Your task to perform on an android device: uninstall "Google Find My Device" Image 0: 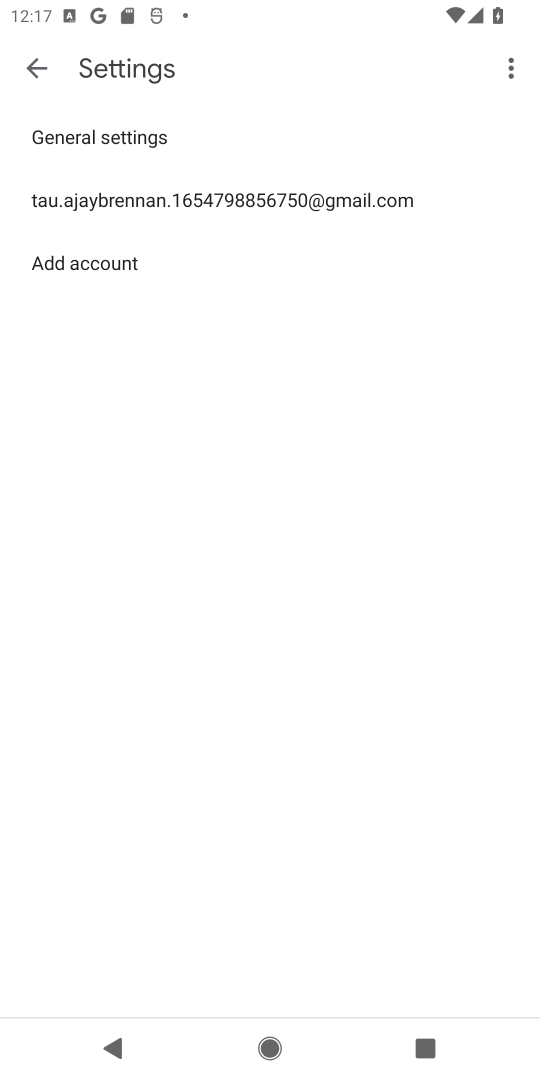
Step 0: press home button
Your task to perform on an android device: uninstall "Google Find My Device" Image 1: 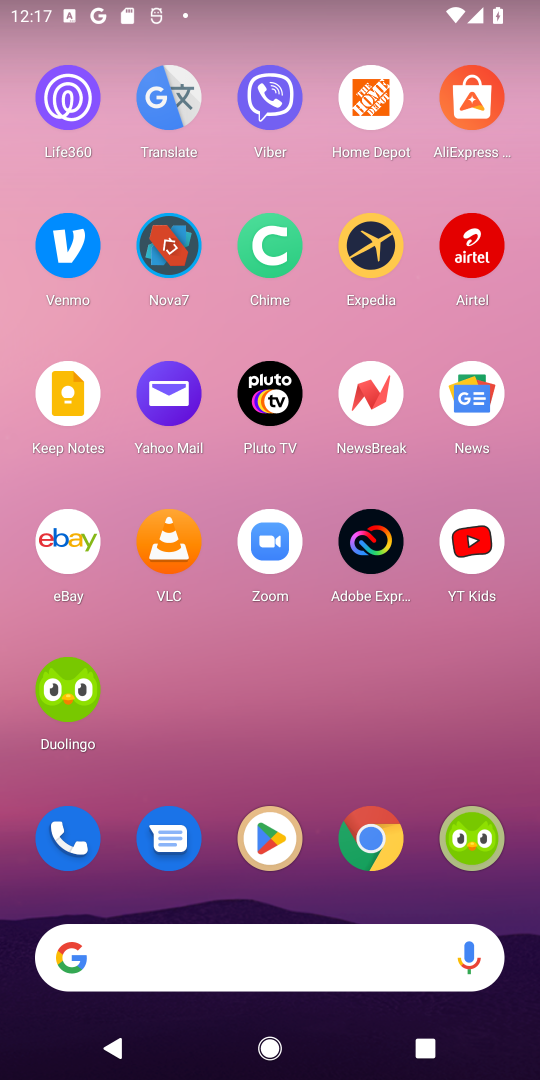
Step 1: click (263, 824)
Your task to perform on an android device: uninstall "Google Find My Device" Image 2: 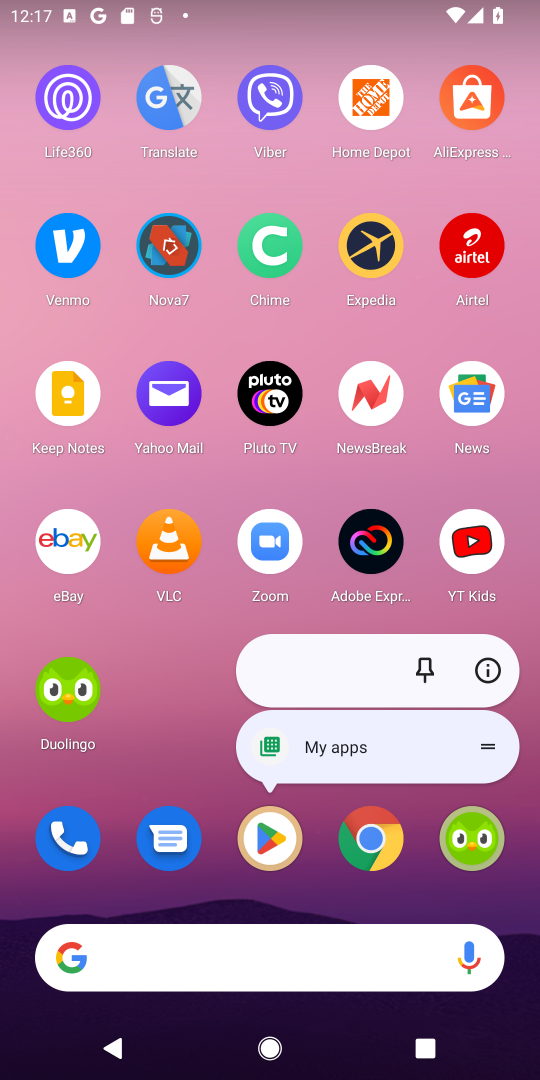
Step 2: click (259, 844)
Your task to perform on an android device: uninstall "Google Find My Device" Image 3: 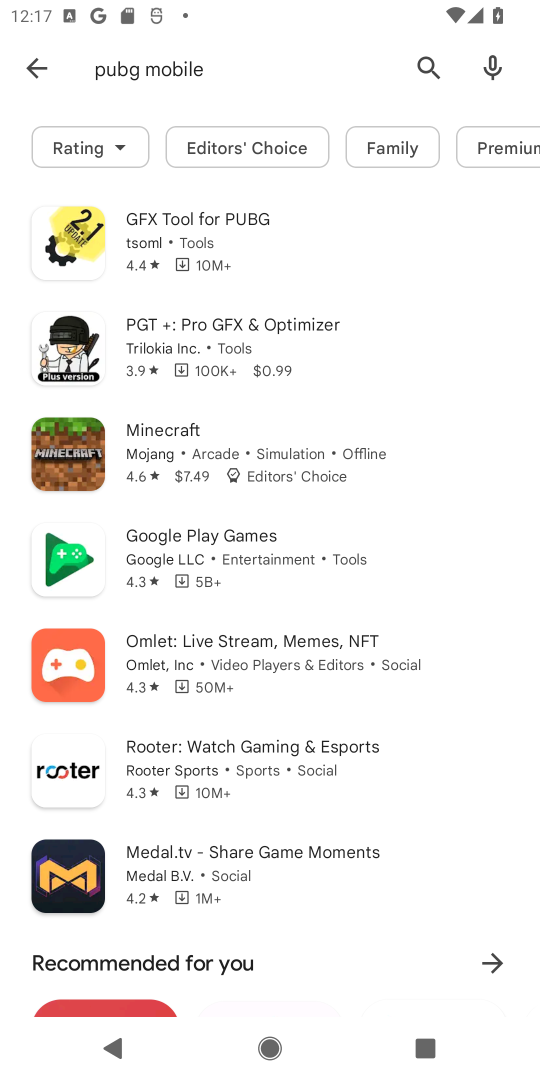
Step 3: click (430, 57)
Your task to perform on an android device: uninstall "Google Find My Device" Image 4: 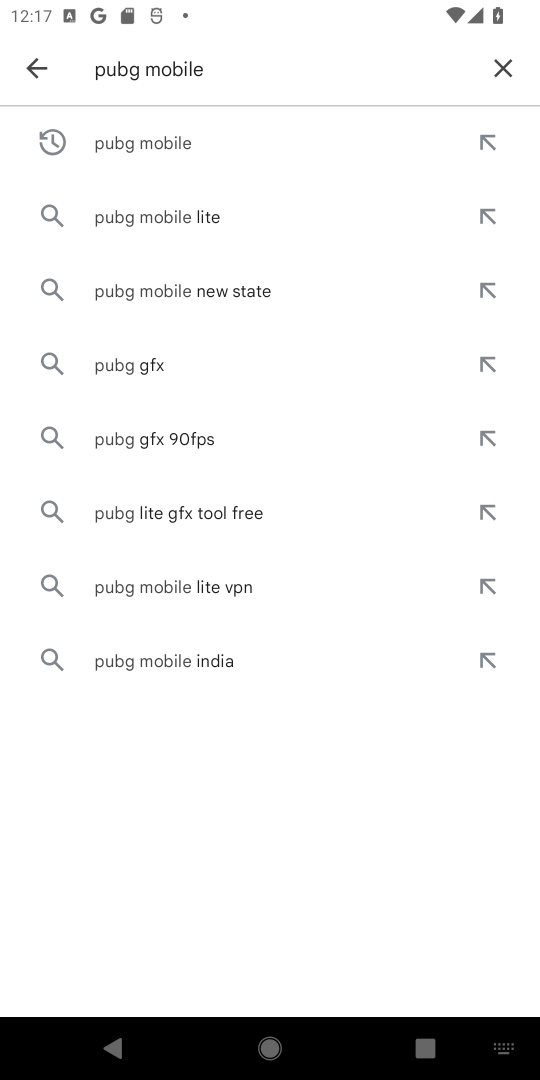
Step 4: click (501, 60)
Your task to perform on an android device: uninstall "Google Find My Device" Image 5: 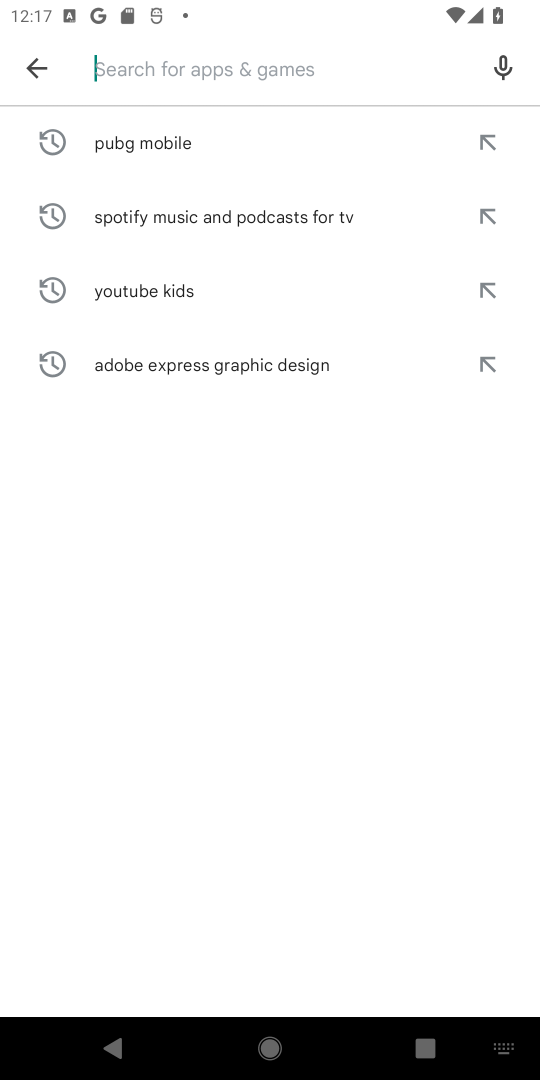
Step 5: type "Google Find My Device"
Your task to perform on an android device: uninstall "Google Find My Device" Image 6: 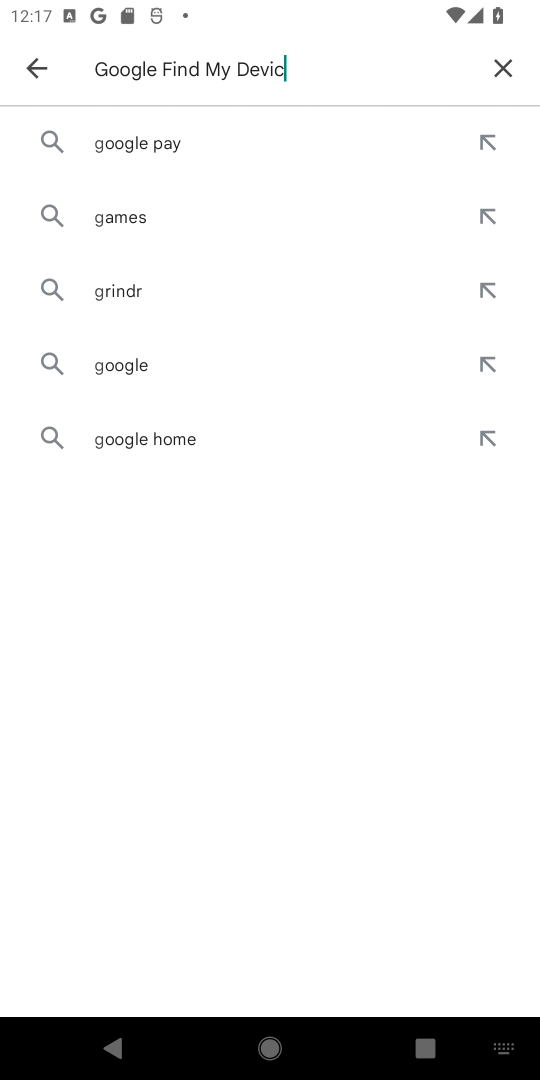
Step 6: type ""
Your task to perform on an android device: uninstall "Google Find My Device" Image 7: 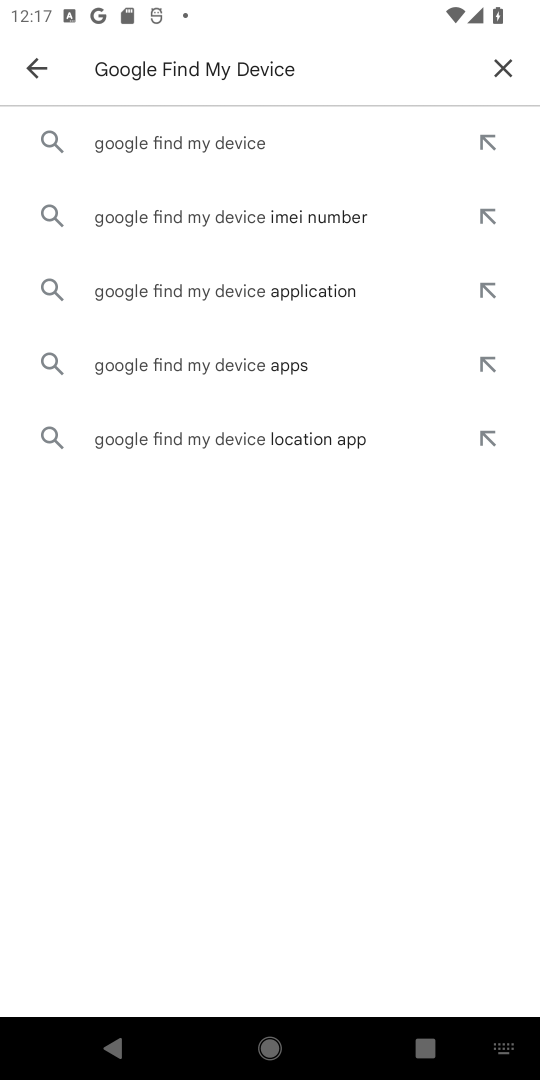
Step 7: click (223, 145)
Your task to perform on an android device: uninstall "Google Find My Device" Image 8: 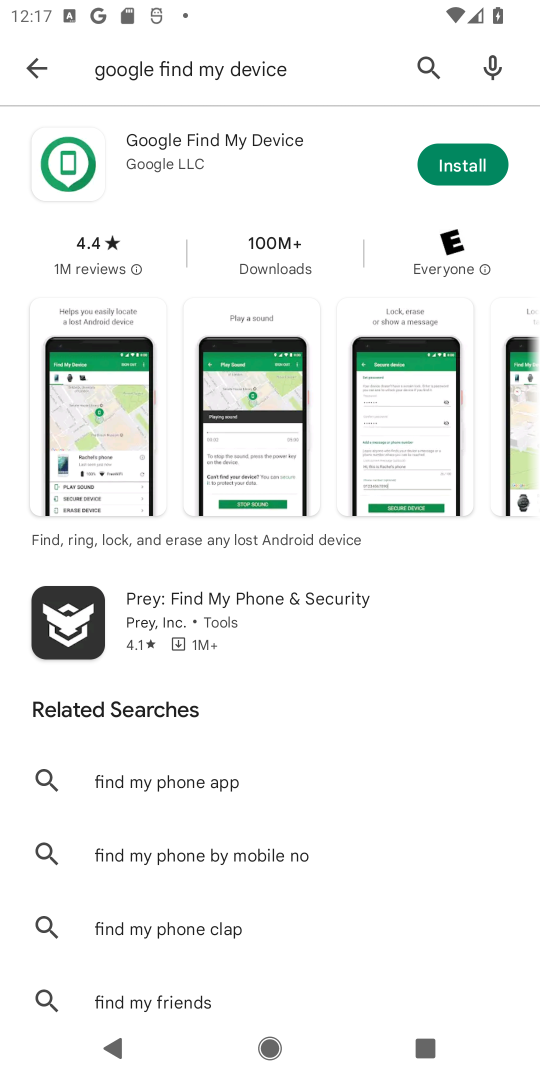
Step 8: task complete